Your task to perform on an android device: move a message to another label in the gmail app Image 0: 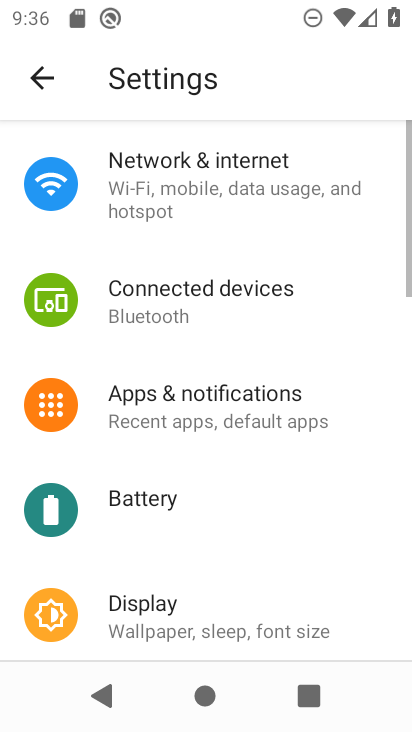
Step 0: press home button
Your task to perform on an android device: move a message to another label in the gmail app Image 1: 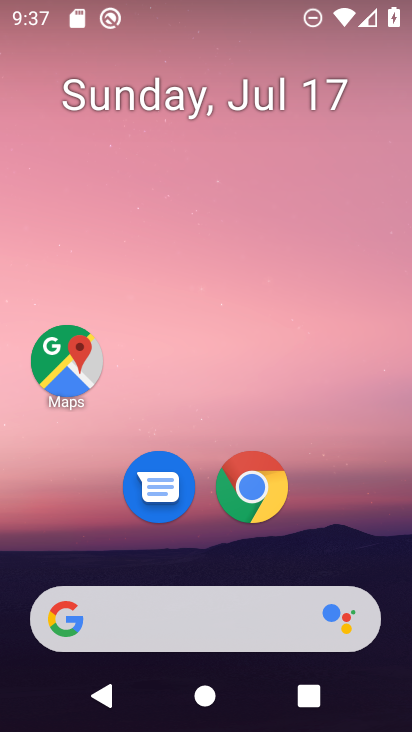
Step 1: drag from (326, 551) to (411, 107)
Your task to perform on an android device: move a message to another label in the gmail app Image 2: 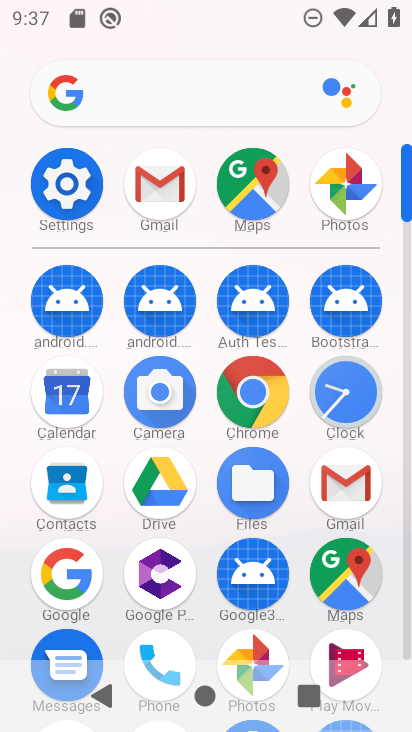
Step 2: click (157, 176)
Your task to perform on an android device: move a message to another label in the gmail app Image 3: 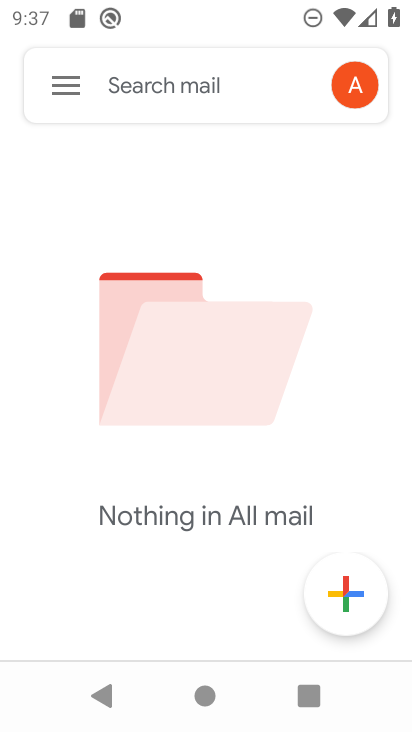
Step 3: click (71, 89)
Your task to perform on an android device: move a message to another label in the gmail app Image 4: 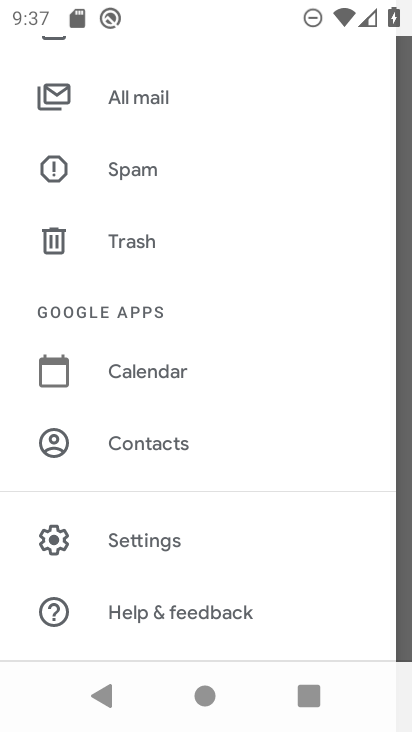
Step 4: click (149, 101)
Your task to perform on an android device: move a message to another label in the gmail app Image 5: 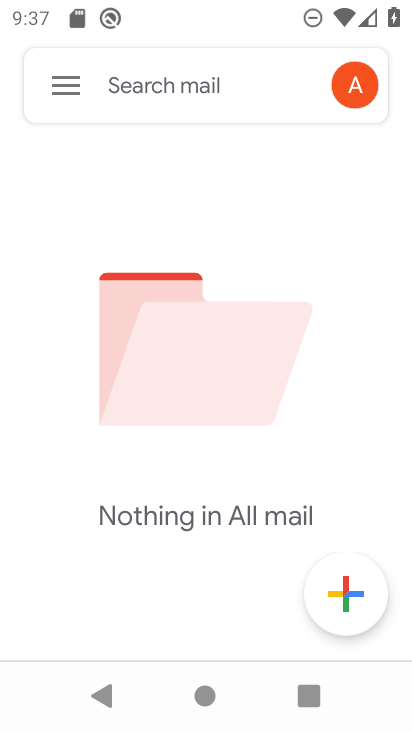
Step 5: task complete